Your task to perform on an android device: Play the last video I watched on Youtube Image 0: 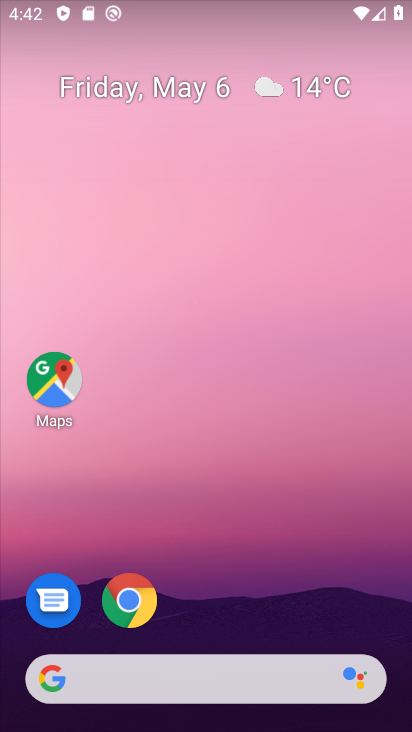
Step 0: drag from (239, 610) to (285, 104)
Your task to perform on an android device: Play the last video I watched on Youtube Image 1: 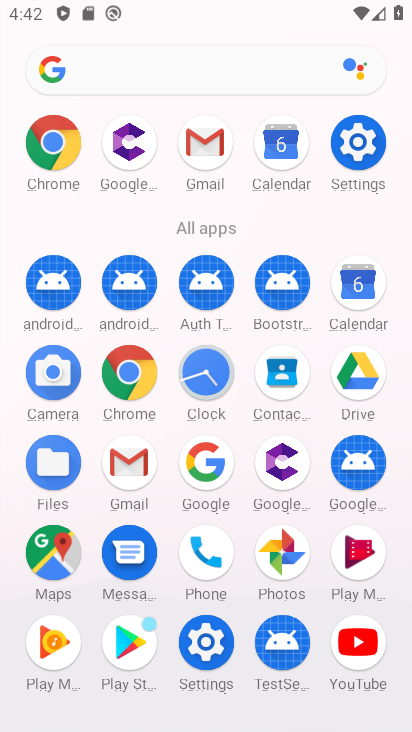
Step 1: click (359, 641)
Your task to perform on an android device: Play the last video I watched on Youtube Image 2: 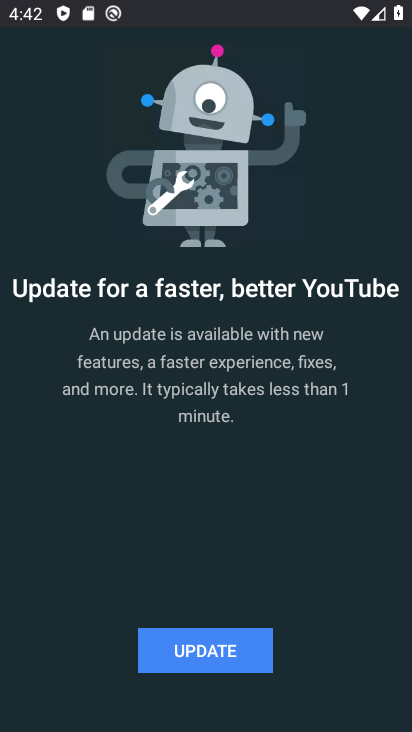
Step 2: click (174, 668)
Your task to perform on an android device: Play the last video I watched on Youtube Image 3: 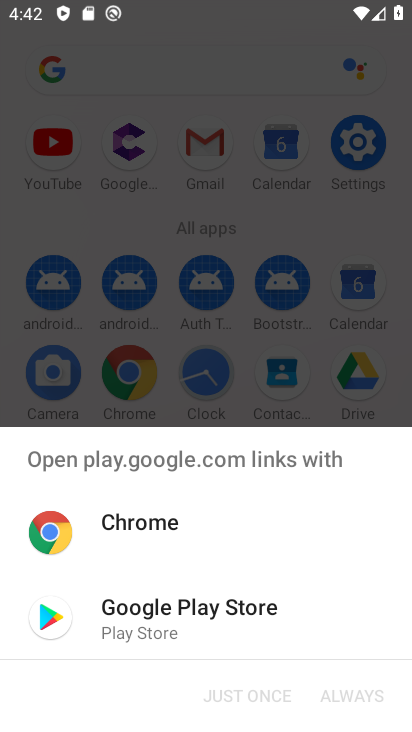
Step 3: click (217, 628)
Your task to perform on an android device: Play the last video I watched on Youtube Image 4: 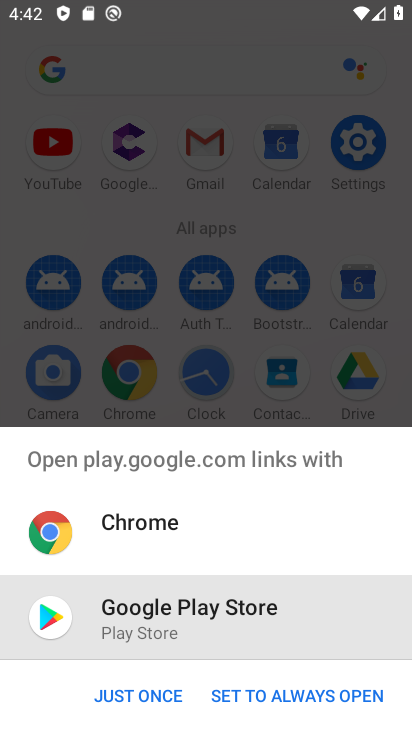
Step 4: click (129, 700)
Your task to perform on an android device: Play the last video I watched on Youtube Image 5: 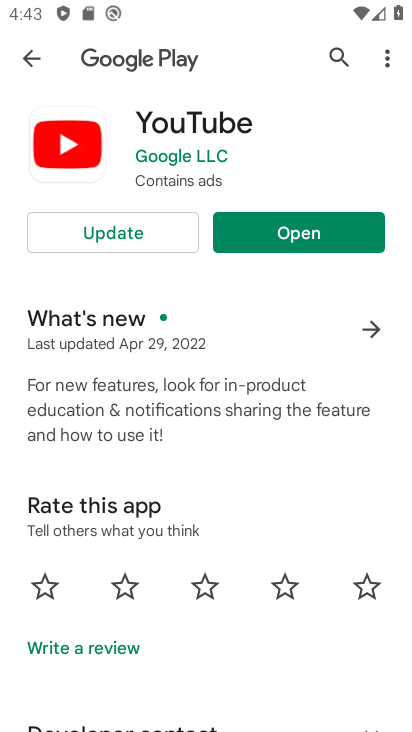
Step 5: click (146, 230)
Your task to perform on an android device: Play the last video I watched on Youtube Image 6: 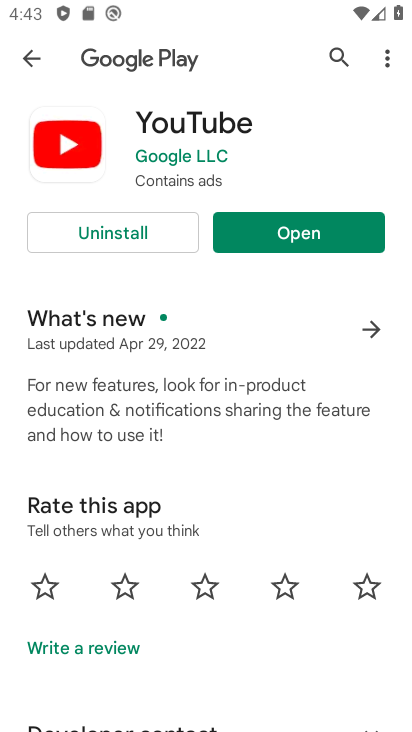
Step 6: click (355, 242)
Your task to perform on an android device: Play the last video I watched on Youtube Image 7: 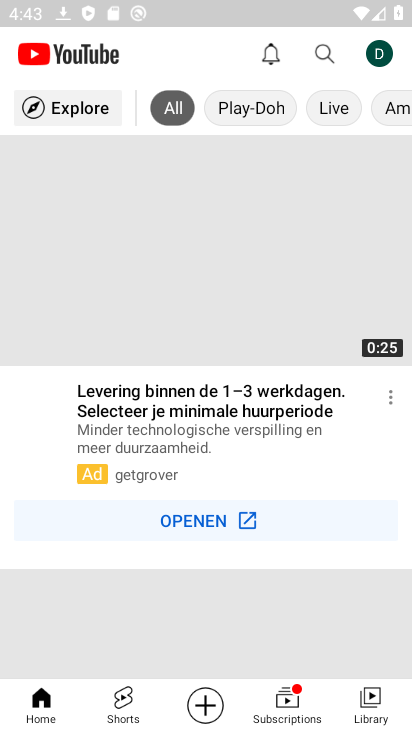
Step 7: click (376, 703)
Your task to perform on an android device: Play the last video I watched on Youtube Image 8: 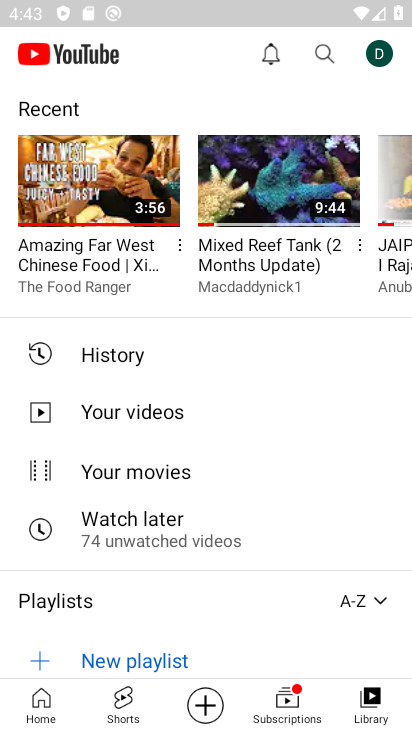
Step 8: click (146, 360)
Your task to perform on an android device: Play the last video I watched on Youtube Image 9: 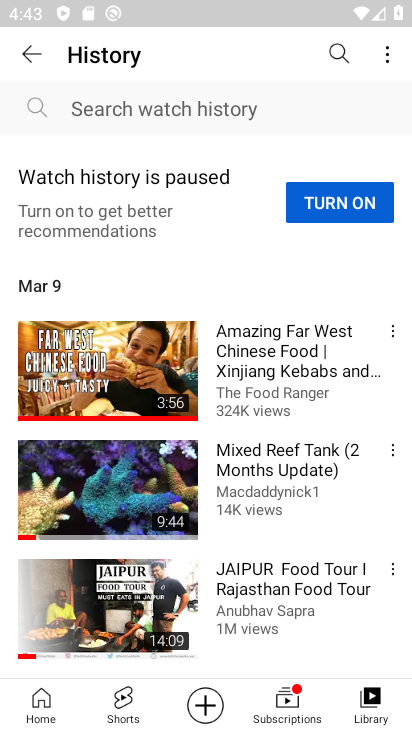
Step 9: click (219, 346)
Your task to perform on an android device: Play the last video I watched on Youtube Image 10: 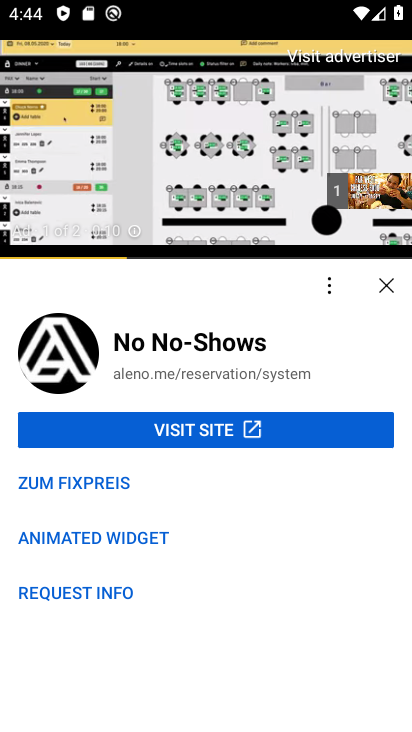
Step 10: task complete